Your task to perform on an android device: manage bookmarks in the chrome app Image 0: 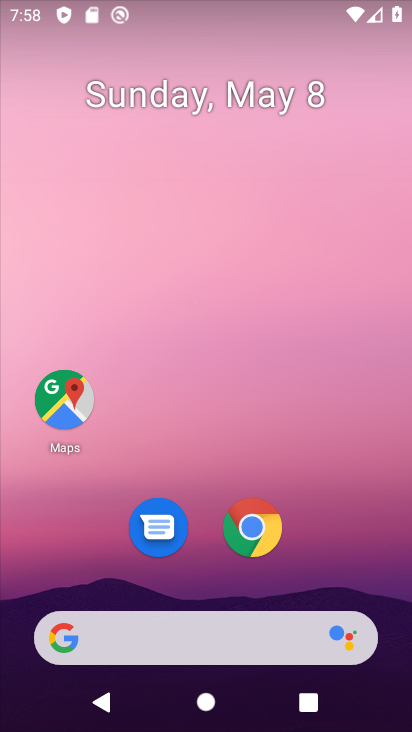
Step 0: drag from (367, 519) to (280, 24)
Your task to perform on an android device: manage bookmarks in the chrome app Image 1: 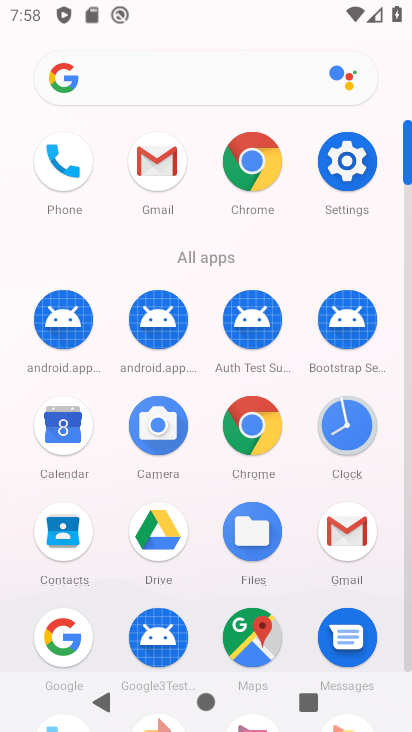
Step 1: drag from (16, 510) to (25, 192)
Your task to perform on an android device: manage bookmarks in the chrome app Image 2: 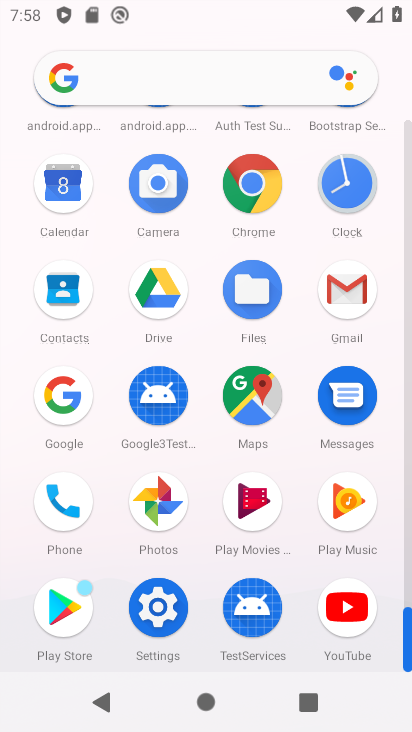
Step 2: click (253, 179)
Your task to perform on an android device: manage bookmarks in the chrome app Image 3: 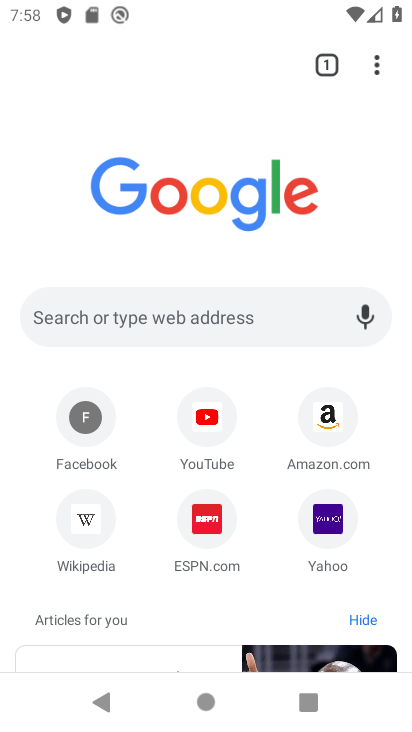
Step 3: drag from (375, 64) to (210, 244)
Your task to perform on an android device: manage bookmarks in the chrome app Image 4: 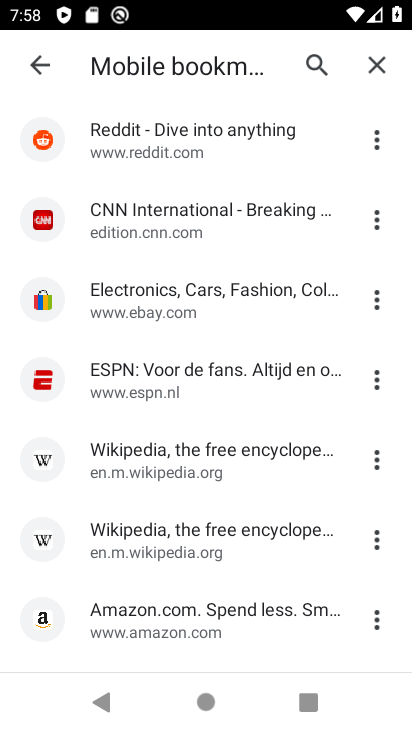
Step 4: click (372, 460)
Your task to perform on an android device: manage bookmarks in the chrome app Image 5: 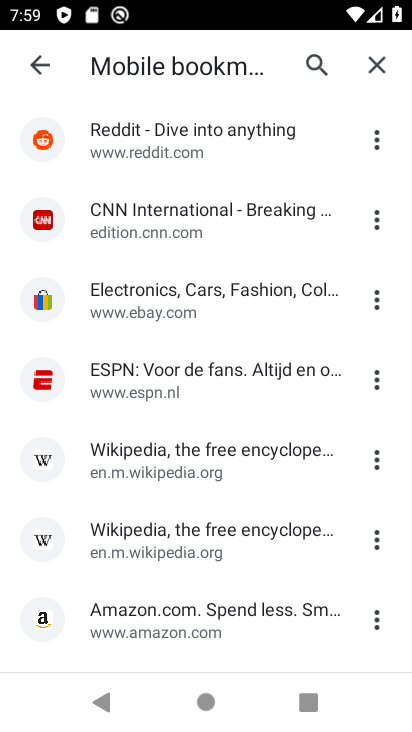
Step 5: click (375, 457)
Your task to perform on an android device: manage bookmarks in the chrome app Image 6: 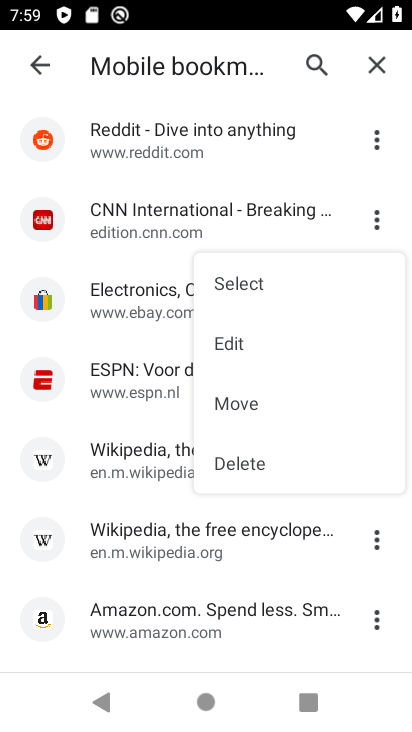
Step 6: click (263, 450)
Your task to perform on an android device: manage bookmarks in the chrome app Image 7: 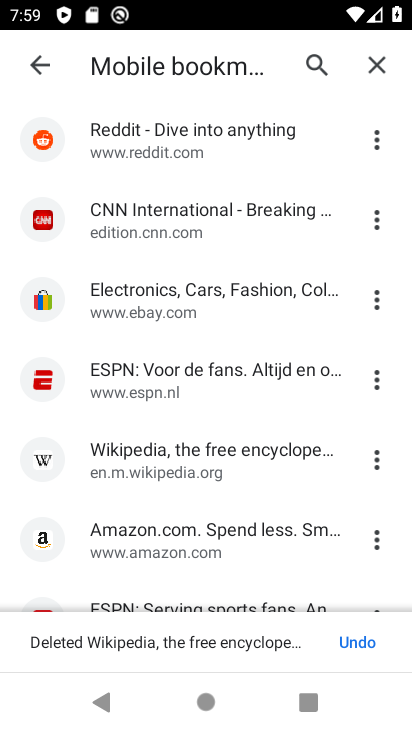
Step 7: click (378, 460)
Your task to perform on an android device: manage bookmarks in the chrome app Image 8: 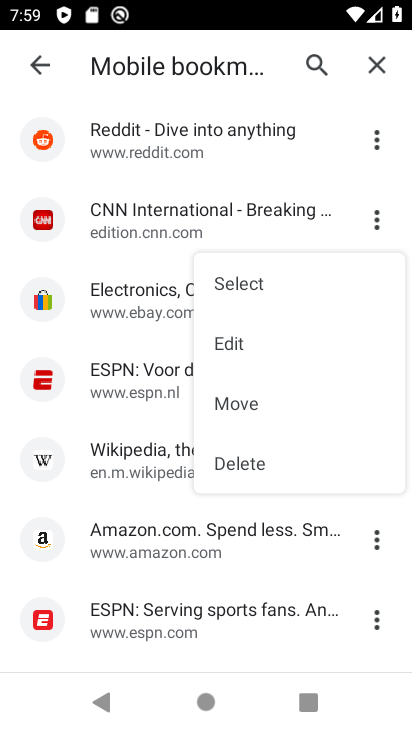
Step 8: click (279, 454)
Your task to perform on an android device: manage bookmarks in the chrome app Image 9: 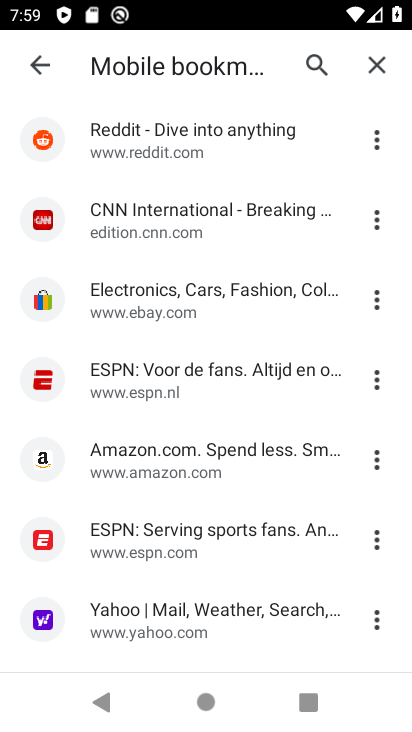
Step 9: task complete